Your task to perform on an android device: read, delete, or share a saved page in the chrome app Image 0: 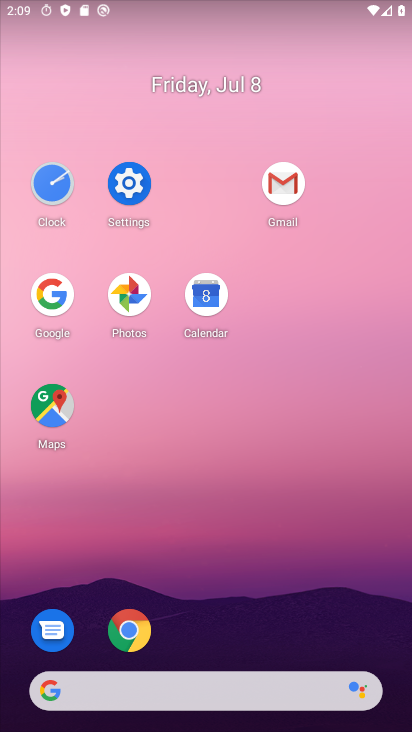
Step 0: click (129, 633)
Your task to perform on an android device: read, delete, or share a saved page in the chrome app Image 1: 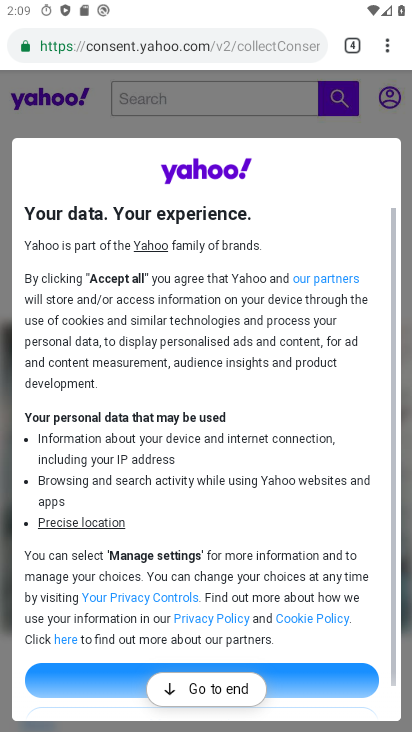
Step 1: click (394, 45)
Your task to perform on an android device: read, delete, or share a saved page in the chrome app Image 2: 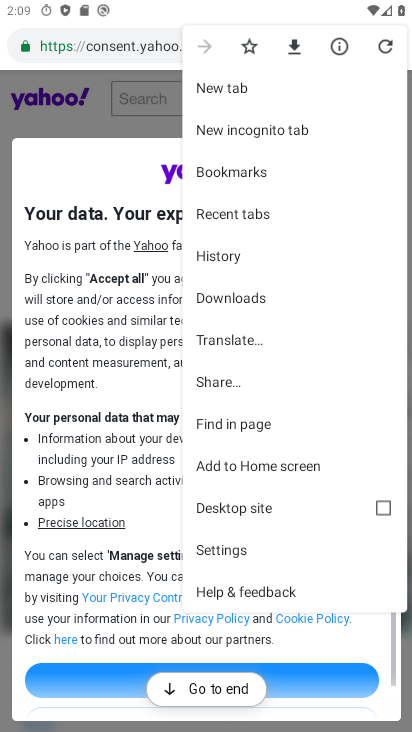
Step 2: click (246, 302)
Your task to perform on an android device: read, delete, or share a saved page in the chrome app Image 3: 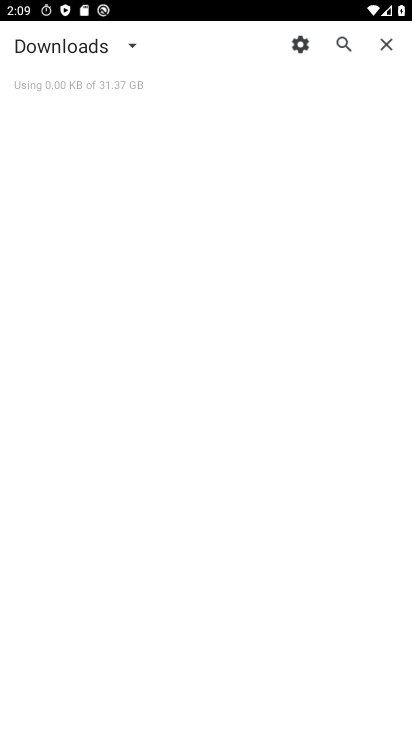
Step 3: task complete